Your task to perform on an android device: Do I have any events this weekend? Image 0: 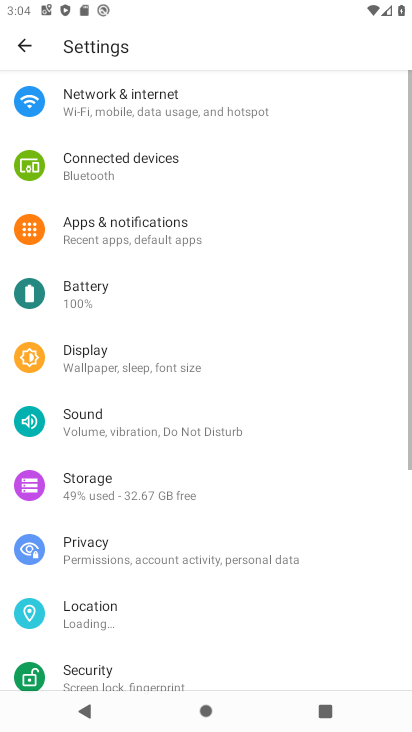
Step 0: press home button
Your task to perform on an android device: Do I have any events this weekend? Image 1: 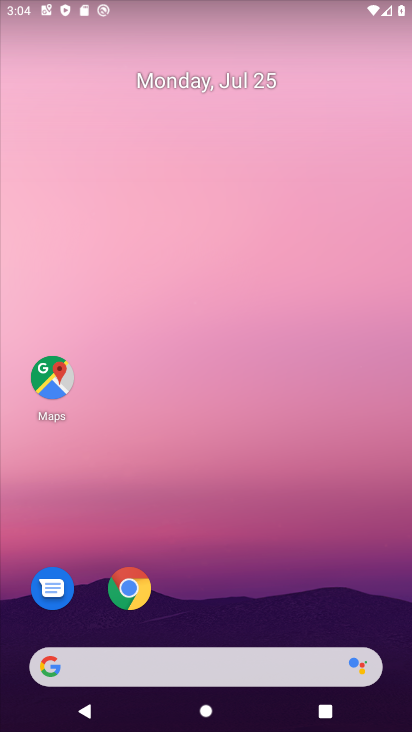
Step 1: drag from (375, 575) to (275, 1)
Your task to perform on an android device: Do I have any events this weekend? Image 2: 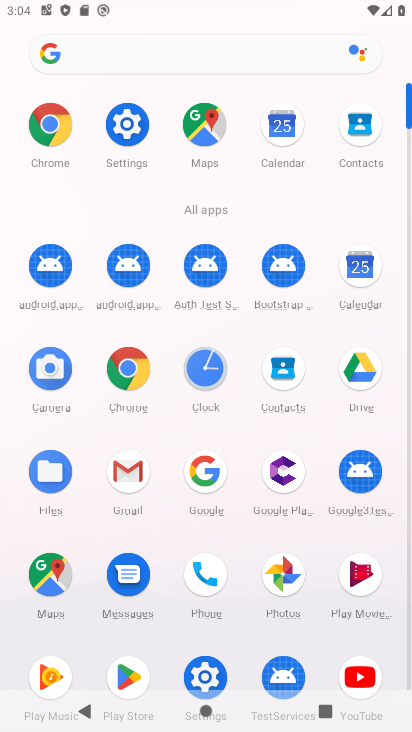
Step 2: click (287, 130)
Your task to perform on an android device: Do I have any events this weekend? Image 3: 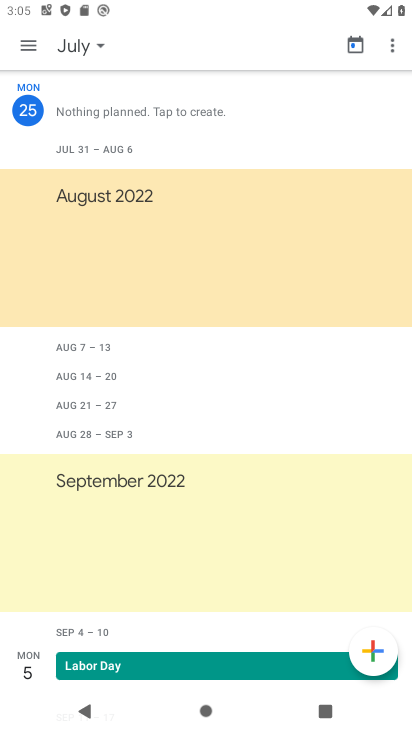
Step 3: click (62, 49)
Your task to perform on an android device: Do I have any events this weekend? Image 4: 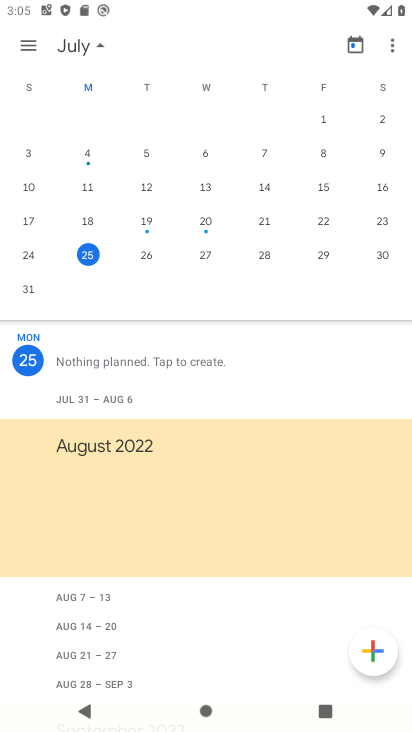
Step 4: click (380, 256)
Your task to perform on an android device: Do I have any events this weekend? Image 5: 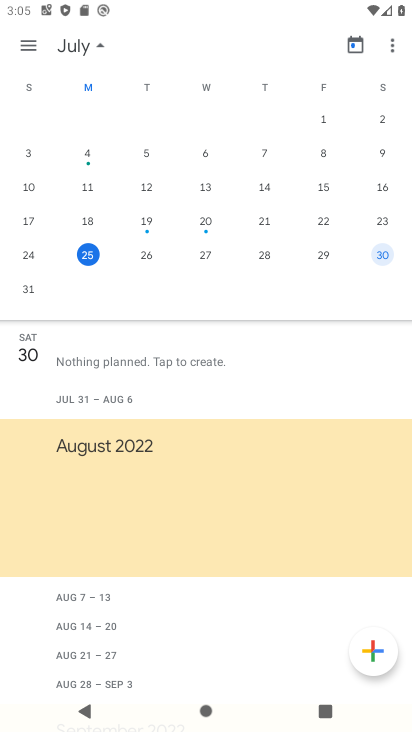
Step 5: click (12, 39)
Your task to perform on an android device: Do I have any events this weekend? Image 6: 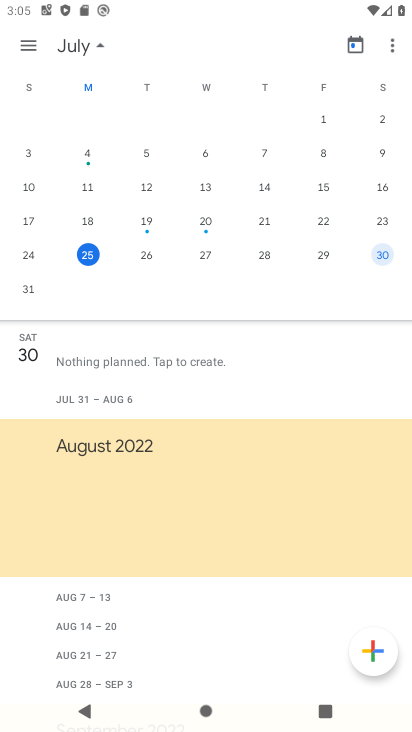
Step 6: click (29, 45)
Your task to perform on an android device: Do I have any events this weekend? Image 7: 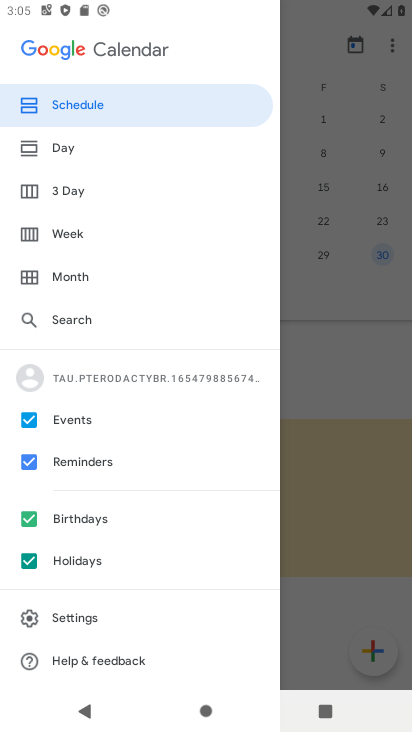
Step 7: click (59, 191)
Your task to perform on an android device: Do I have any events this weekend? Image 8: 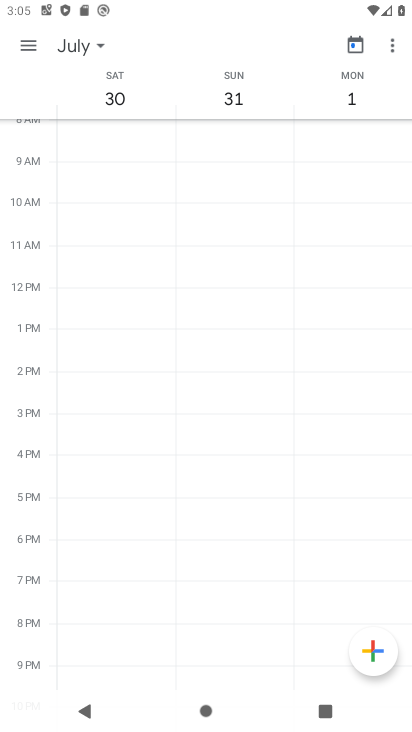
Step 8: task complete